Your task to perform on an android device: Go to Google Image 0: 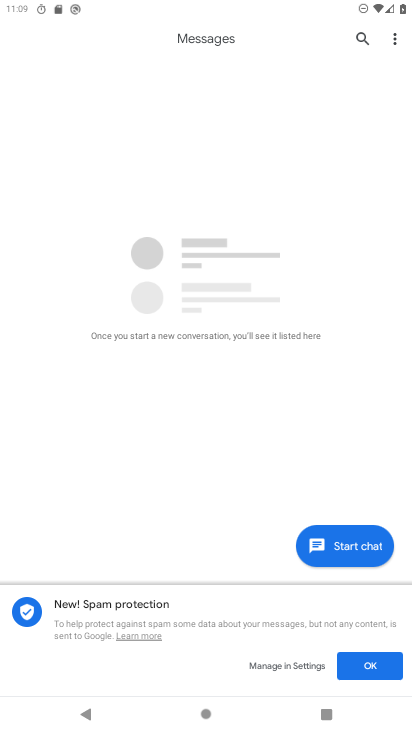
Step 0: drag from (393, 683) to (364, 242)
Your task to perform on an android device: Go to Google Image 1: 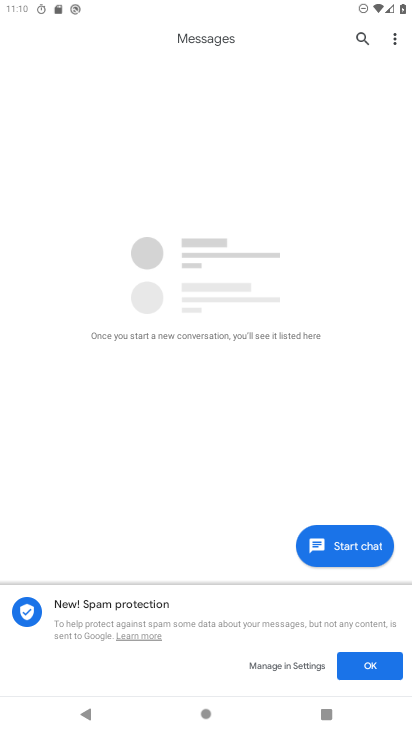
Step 1: press home button
Your task to perform on an android device: Go to Google Image 2: 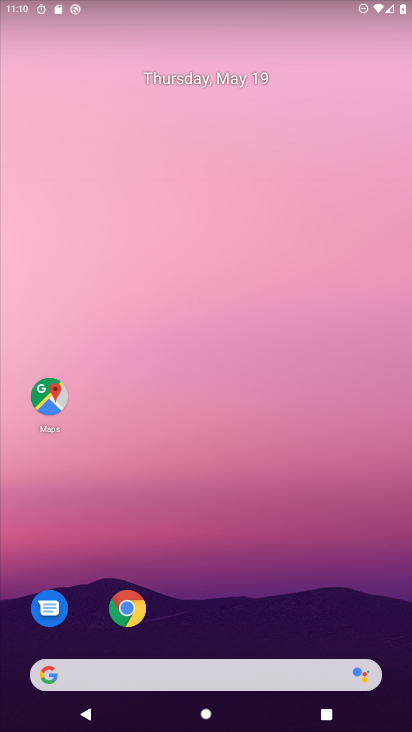
Step 2: drag from (386, 635) to (353, 256)
Your task to perform on an android device: Go to Google Image 3: 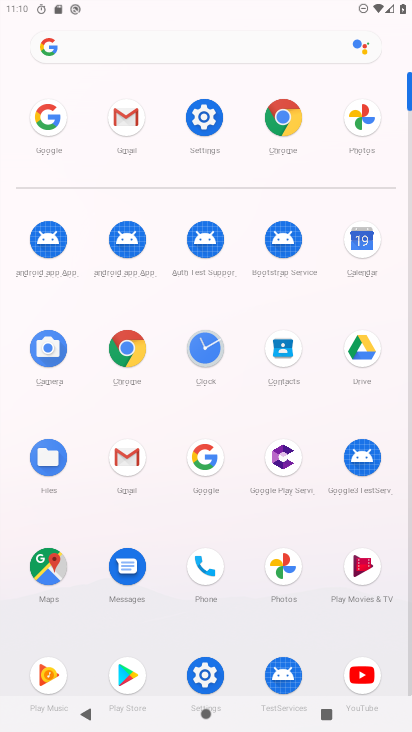
Step 3: click (205, 345)
Your task to perform on an android device: Go to Google Image 4: 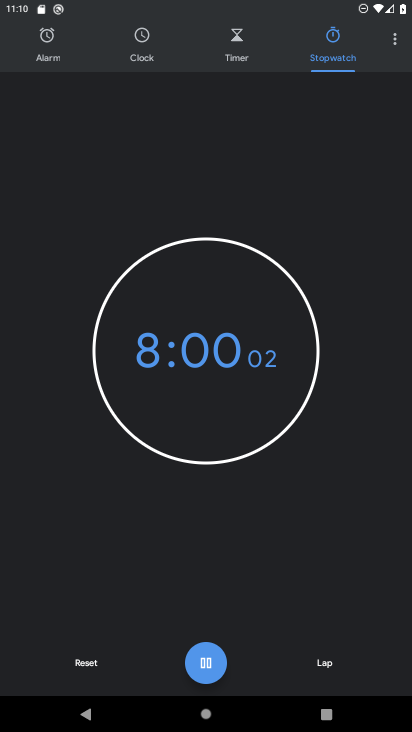
Step 4: press home button
Your task to perform on an android device: Go to Google Image 5: 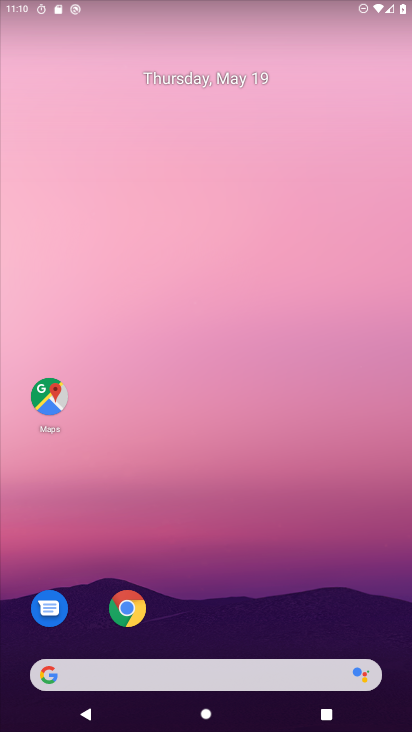
Step 5: drag from (404, 584) to (375, 305)
Your task to perform on an android device: Go to Google Image 6: 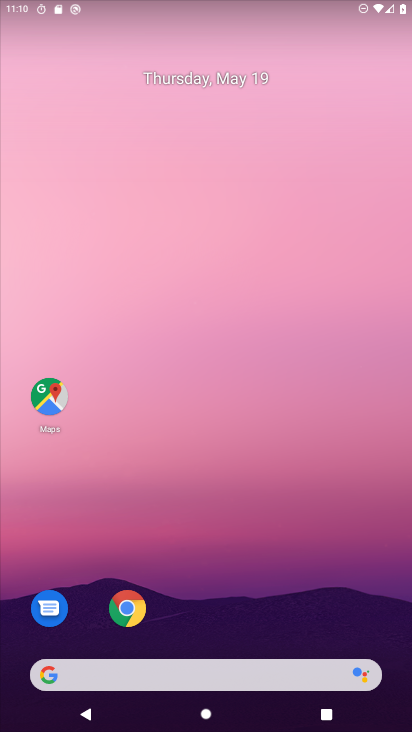
Step 6: drag from (402, 631) to (366, 217)
Your task to perform on an android device: Go to Google Image 7: 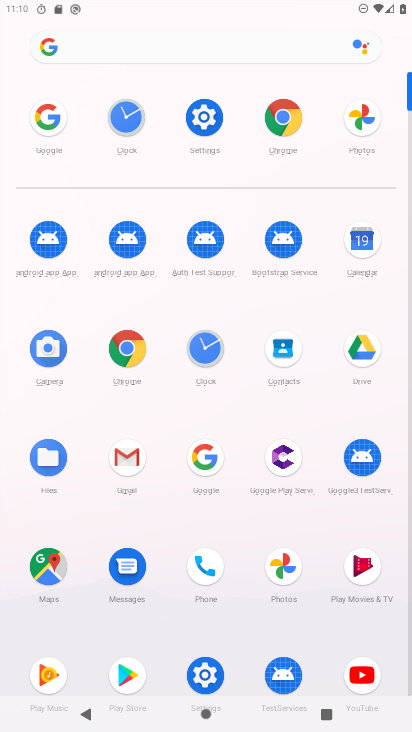
Step 7: click (199, 455)
Your task to perform on an android device: Go to Google Image 8: 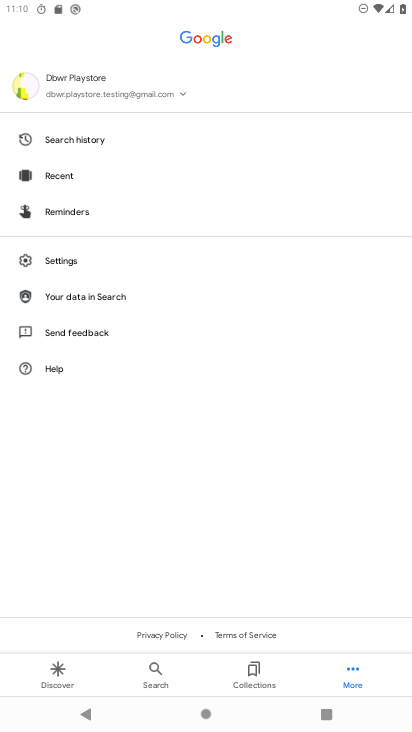
Step 8: task complete